Your task to perform on an android device: How big is a blue whale? Image 0: 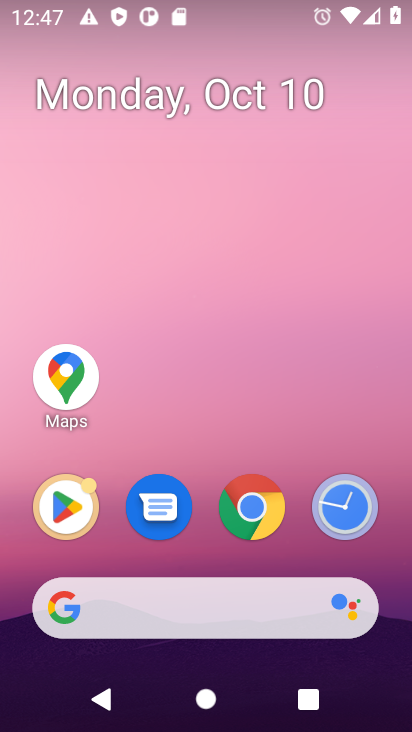
Step 0: press home button
Your task to perform on an android device: How big is a blue whale? Image 1: 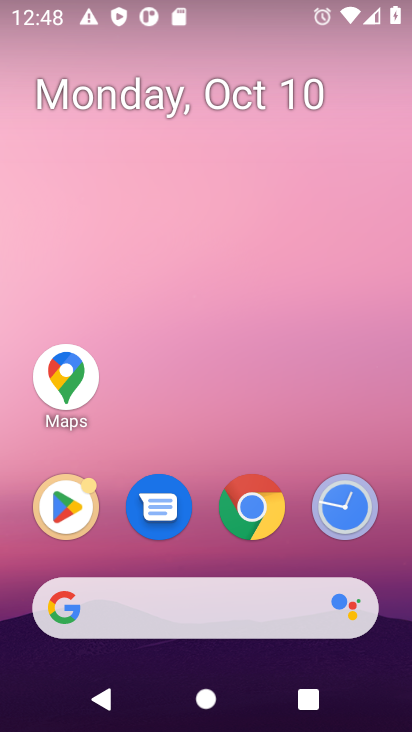
Step 1: drag from (388, 559) to (366, 92)
Your task to perform on an android device: How big is a blue whale? Image 2: 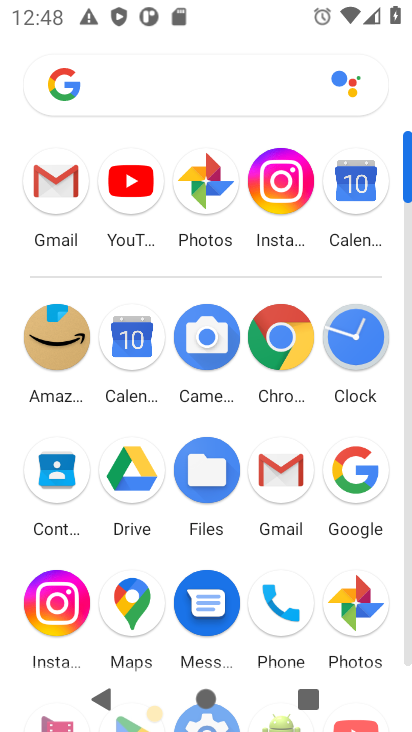
Step 2: click (372, 462)
Your task to perform on an android device: How big is a blue whale? Image 3: 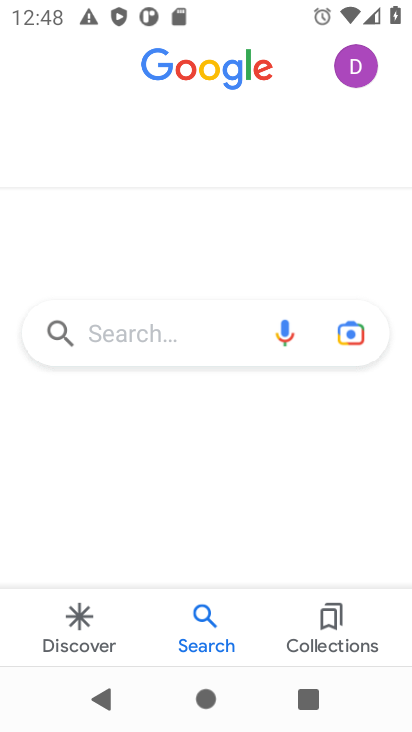
Step 3: click (187, 340)
Your task to perform on an android device: How big is a blue whale? Image 4: 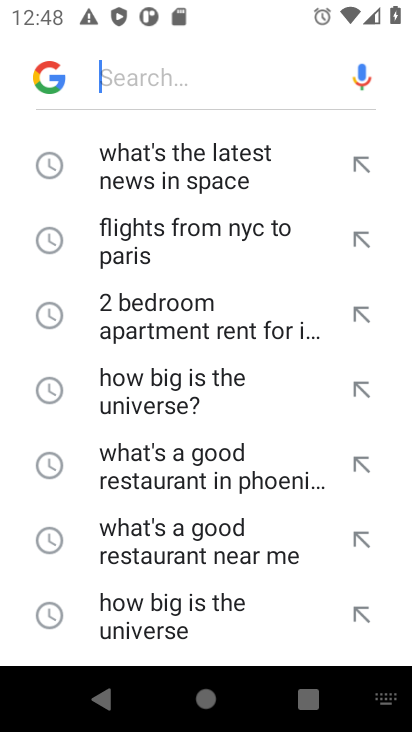
Step 4: type "How big is a blue whale"
Your task to perform on an android device: How big is a blue whale? Image 5: 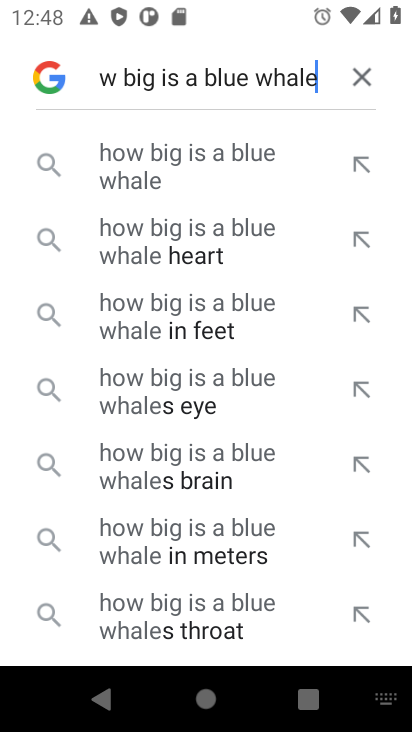
Step 5: press enter
Your task to perform on an android device: How big is a blue whale? Image 6: 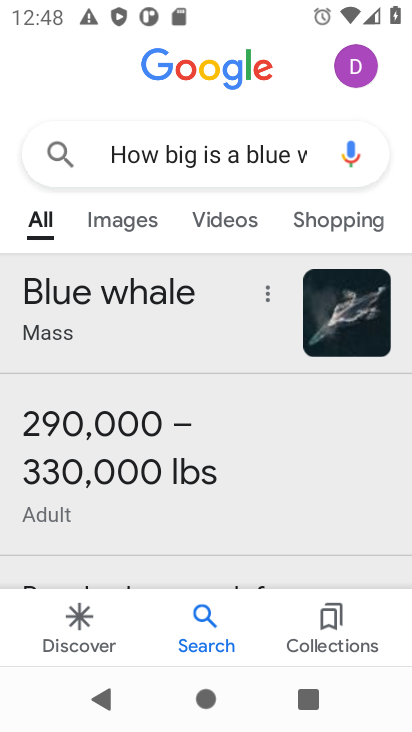
Step 6: task complete